Your task to perform on an android device: Open Google Image 0: 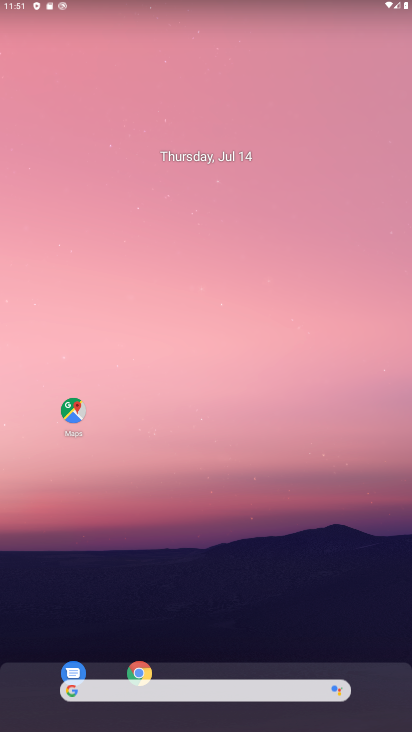
Step 0: drag from (164, 673) to (219, 396)
Your task to perform on an android device: Open Google Image 1: 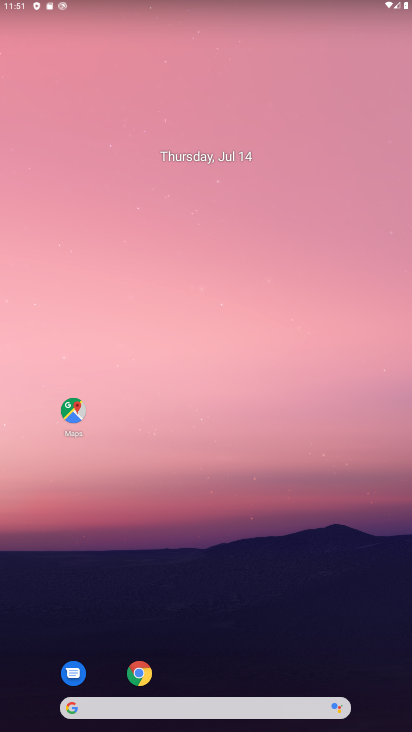
Step 1: drag from (164, 675) to (271, 213)
Your task to perform on an android device: Open Google Image 2: 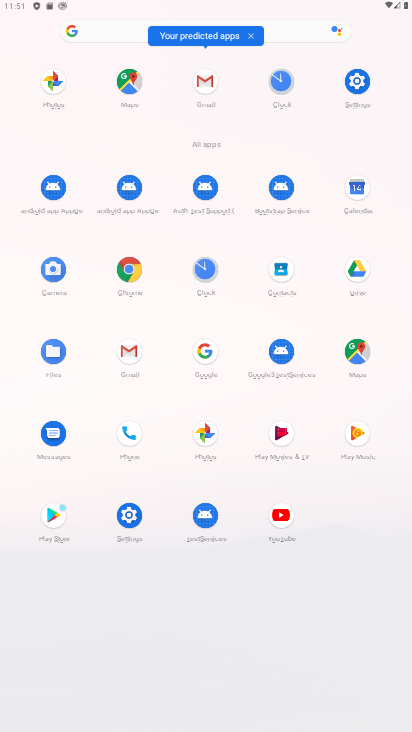
Step 2: click (212, 354)
Your task to perform on an android device: Open Google Image 3: 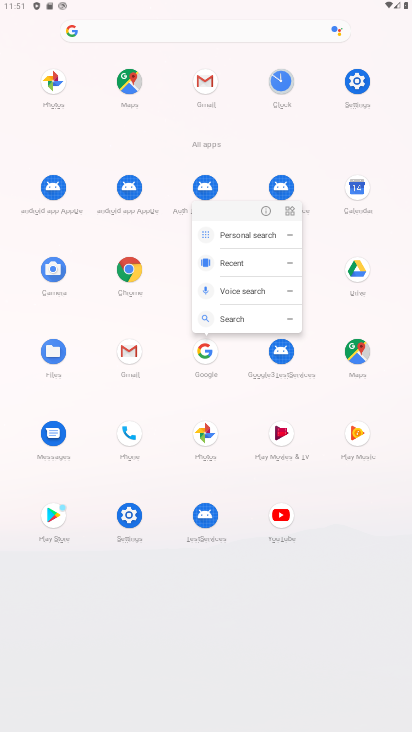
Step 3: click (197, 359)
Your task to perform on an android device: Open Google Image 4: 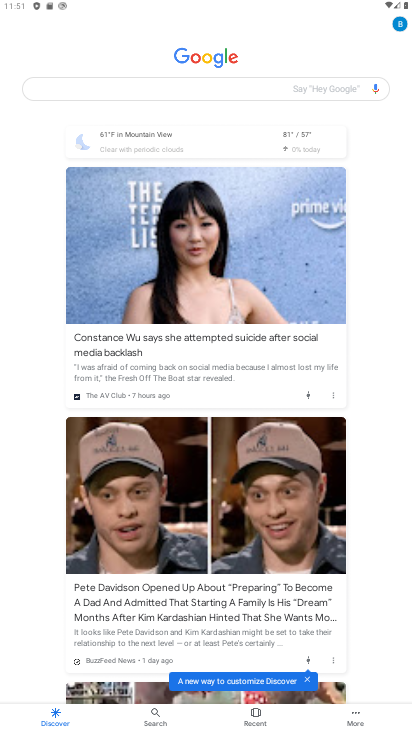
Step 4: task complete